Your task to perform on an android device: turn vacation reply on in the gmail app Image 0: 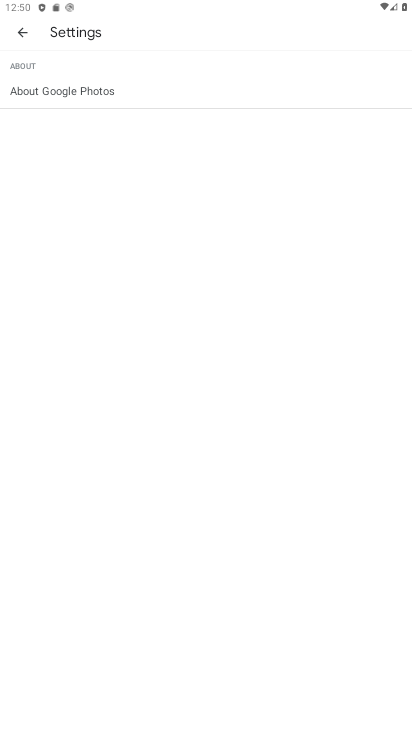
Step 0: press home button
Your task to perform on an android device: turn vacation reply on in the gmail app Image 1: 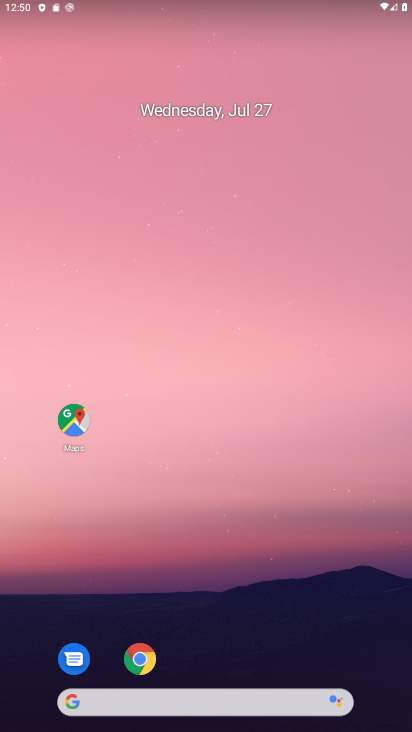
Step 1: drag from (238, 516) to (234, 191)
Your task to perform on an android device: turn vacation reply on in the gmail app Image 2: 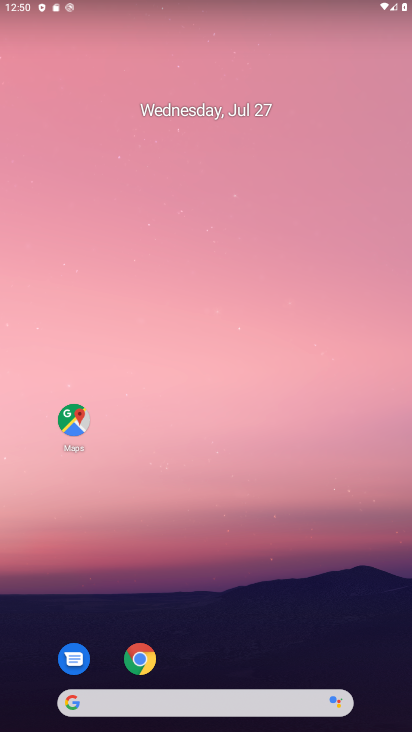
Step 2: drag from (262, 659) to (298, 192)
Your task to perform on an android device: turn vacation reply on in the gmail app Image 3: 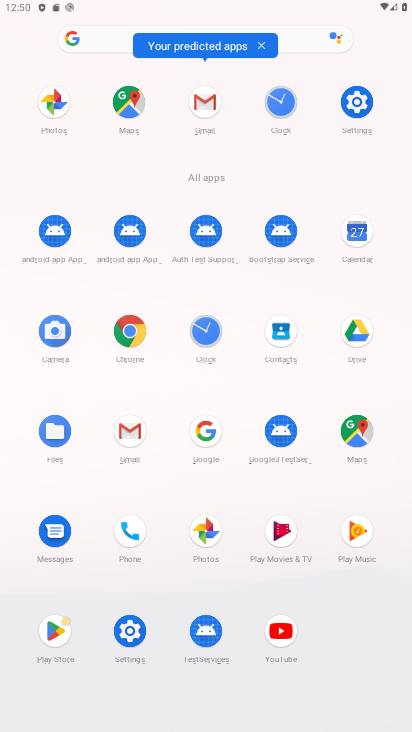
Step 3: click (201, 111)
Your task to perform on an android device: turn vacation reply on in the gmail app Image 4: 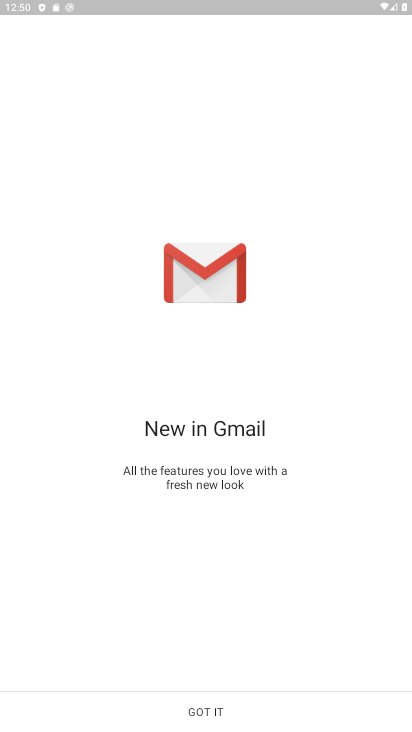
Step 4: click (219, 704)
Your task to perform on an android device: turn vacation reply on in the gmail app Image 5: 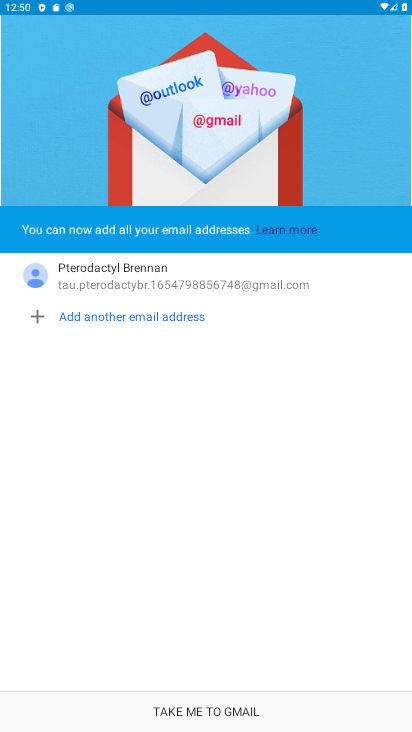
Step 5: click (143, 710)
Your task to perform on an android device: turn vacation reply on in the gmail app Image 6: 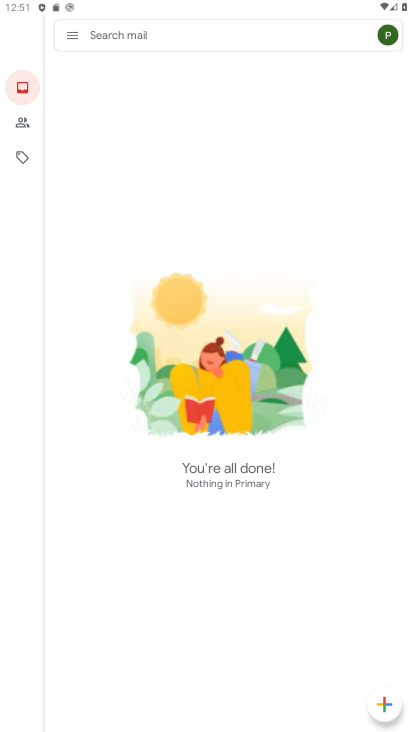
Step 6: click (65, 34)
Your task to perform on an android device: turn vacation reply on in the gmail app Image 7: 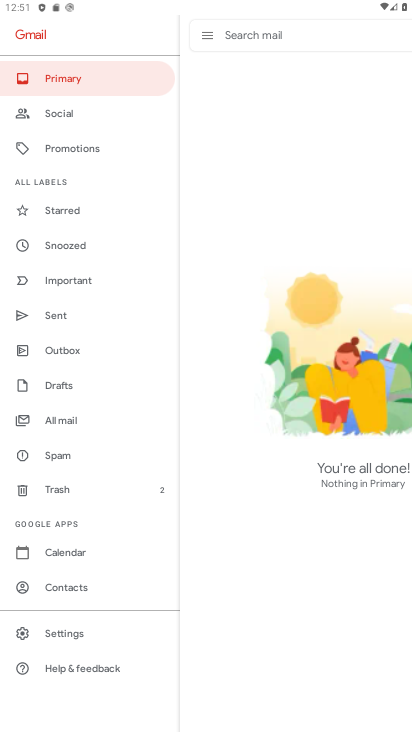
Step 7: click (36, 639)
Your task to perform on an android device: turn vacation reply on in the gmail app Image 8: 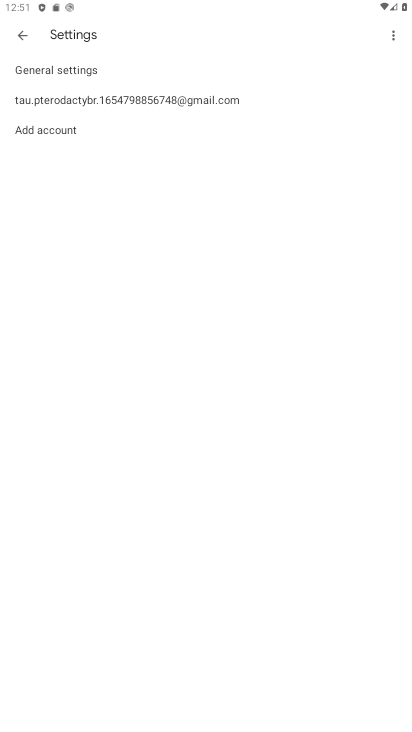
Step 8: click (130, 92)
Your task to perform on an android device: turn vacation reply on in the gmail app Image 9: 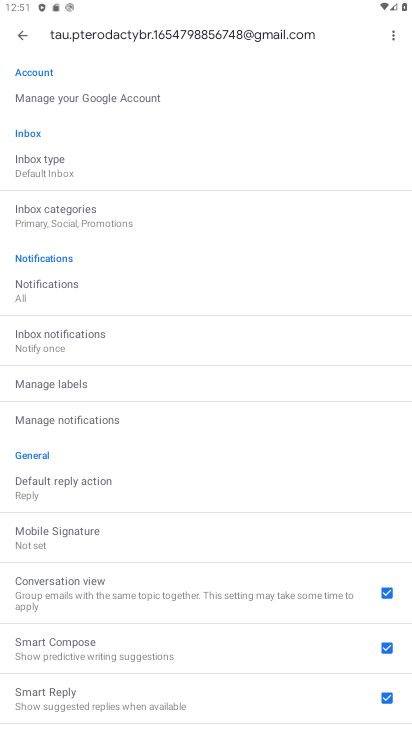
Step 9: drag from (125, 566) to (52, 118)
Your task to perform on an android device: turn vacation reply on in the gmail app Image 10: 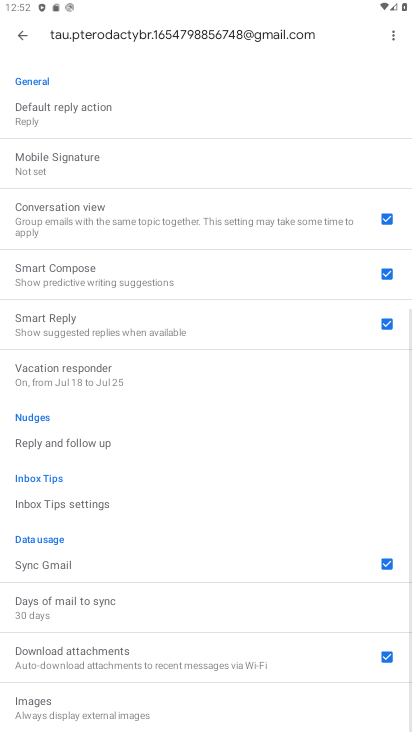
Step 10: click (56, 381)
Your task to perform on an android device: turn vacation reply on in the gmail app Image 11: 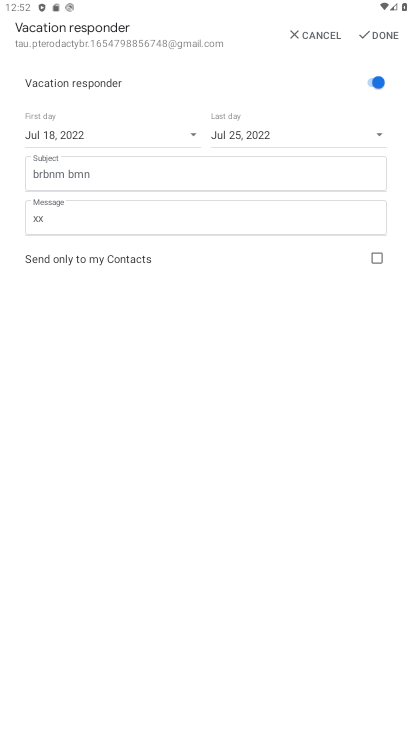
Step 11: click (93, 222)
Your task to perform on an android device: turn vacation reply on in the gmail app Image 12: 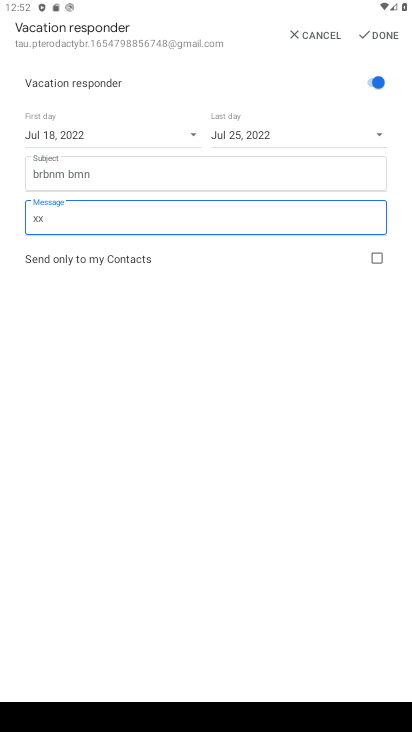
Step 12: type "nnhgdsaqwetui753"
Your task to perform on an android device: turn vacation reply on in the gmail app Image 13: 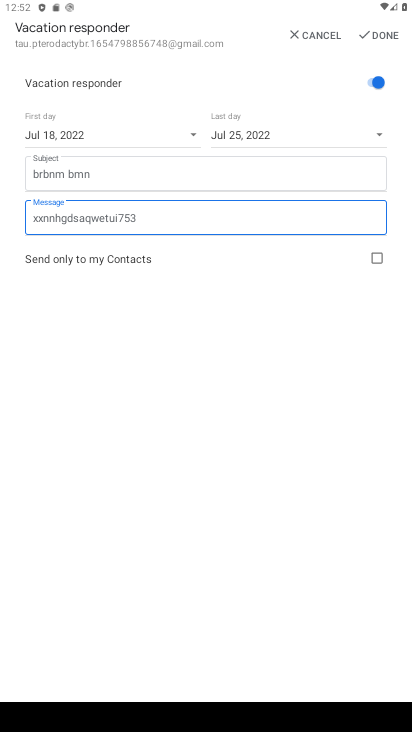
Step 13: click (190, 135)
Your task to perform on an android device: turn vacation reply on in the gmail app Image 14: 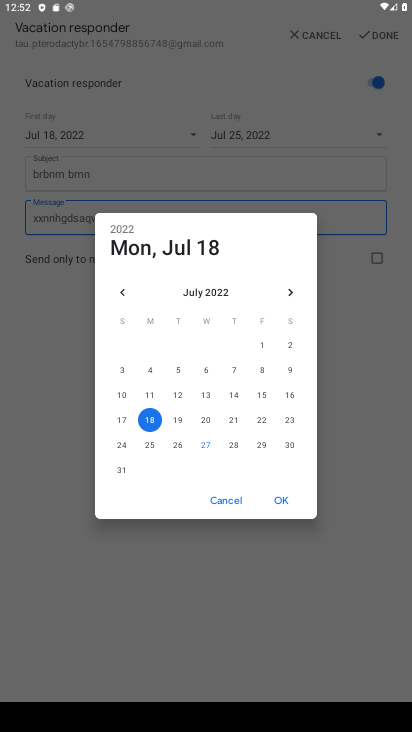
Step 14: click (207, 443)
Your task to perform on an android device: turn vacation reply on in the gmail app Image 15: 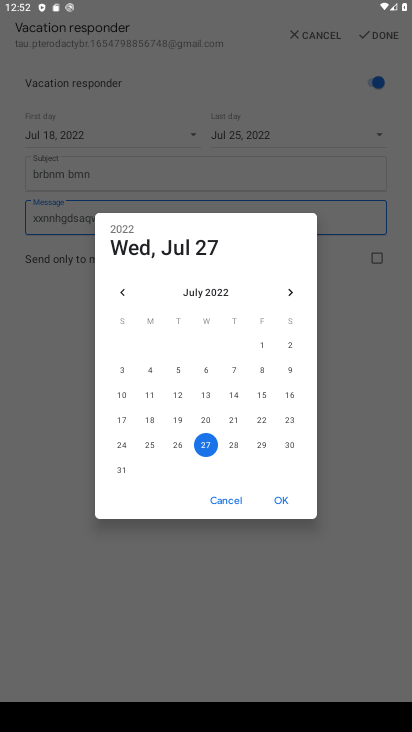
Step 15: click (279, 506)
Your task to perform on an android device: turn vacation reply on in the gmail app Image 16: 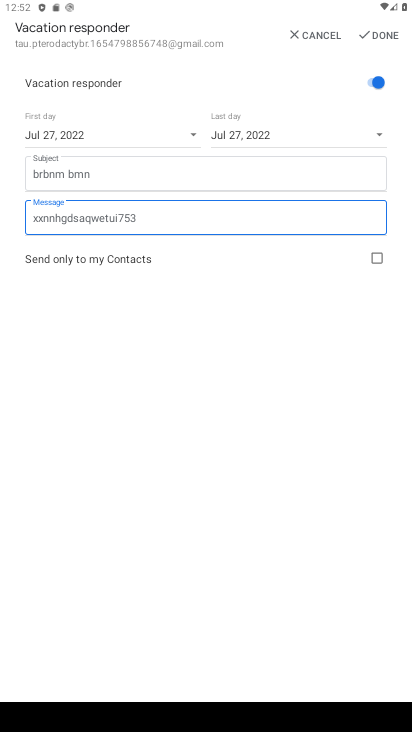
Step 16: click (378, 134)
Your task to perform on an android device: turn vacation reply on in the gmail app Image 17: 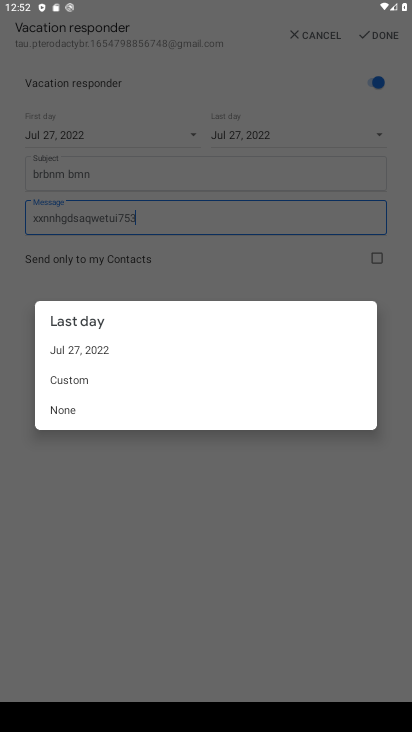
Step 17: click (92, 379)
Your task to perform on an android device: turn vacation reply on in the gmail app Image 18: 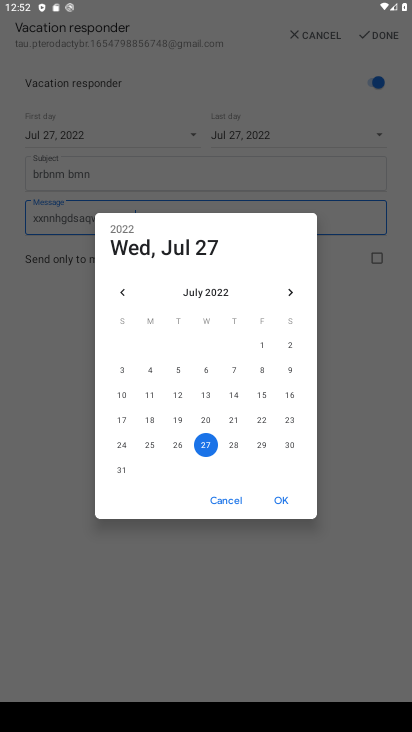
Step 18: drag from (283, 452) to (42, 451)
Your task to perform on an android device: turn vacation reply on in the gmail app Image 19: 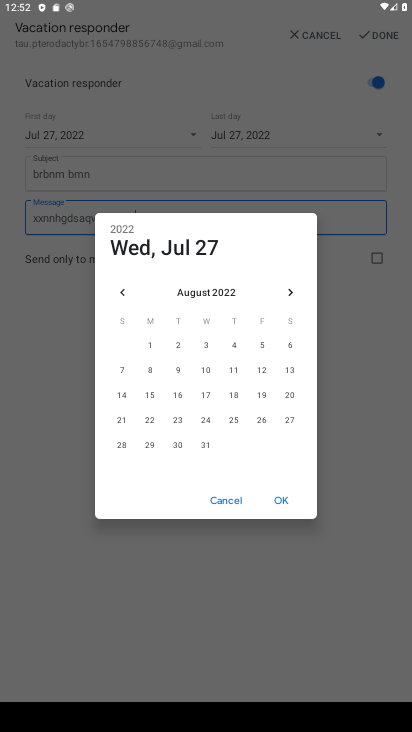
Step 19: click (290, 292)
Your task to perform on an android device: turn vacation reply on in the gmail app Image 20: 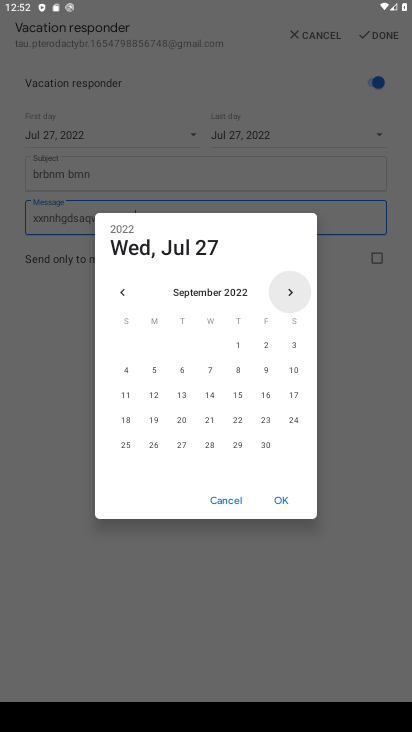
Step 20: click (290, 292)
Your task to perform on an android device: turn vacation reply on in the gmail app Image 21: 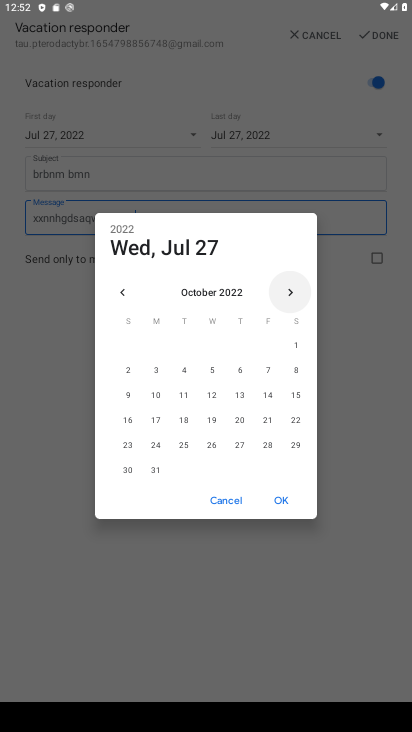
Step 21: click (290, 292)
Your task to perform on an android device: turn vacation reply on in the gmail app Image 22: 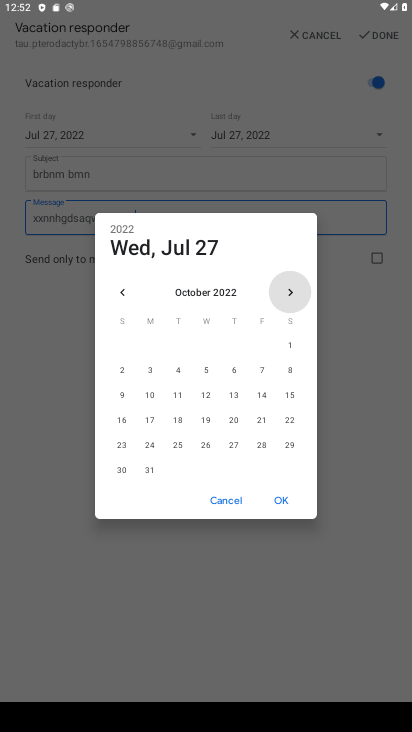
Step 22: click (290, 292)
Your task to perform on an android device: turn vacation reply on in the gmail app Image 23: 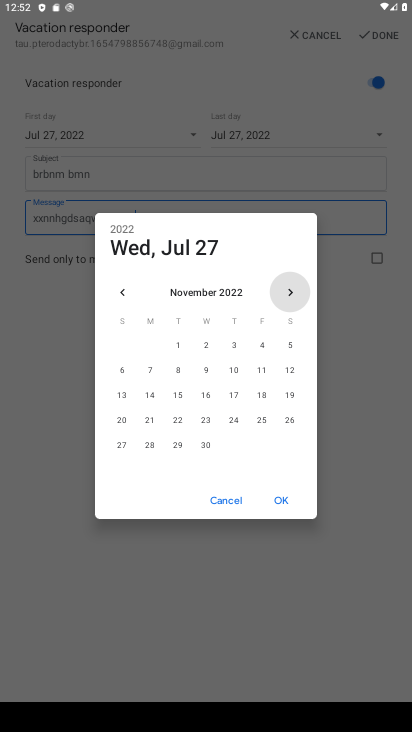
Step 23: click (290, 292)
Your task to perform on an android device: turn vacation reply on in the gmail app Image 24: 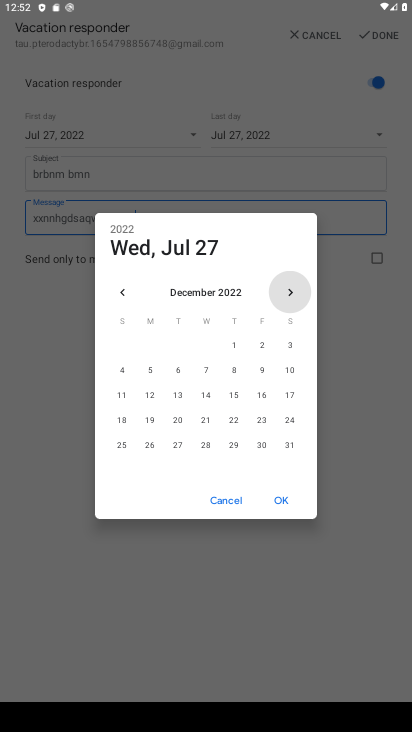
Step 24: click (290, 292)
Your task to perform on an android device: turn vacation reply on in the gmail app Image 25: 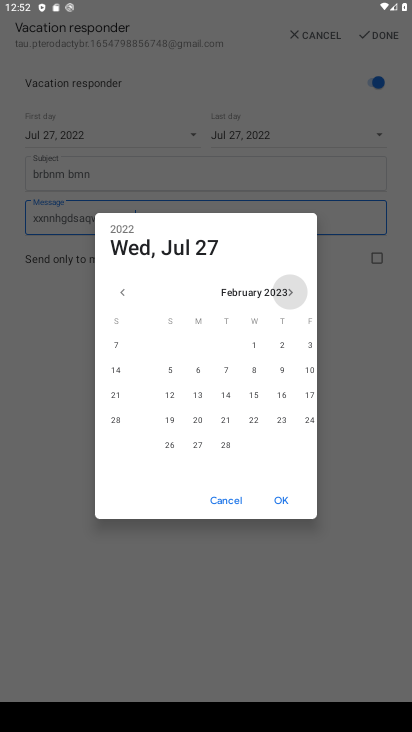
Step 25: click (290, 292)
Your task to perform on an android device: turn vacation reply on in the gmail app Image 26: 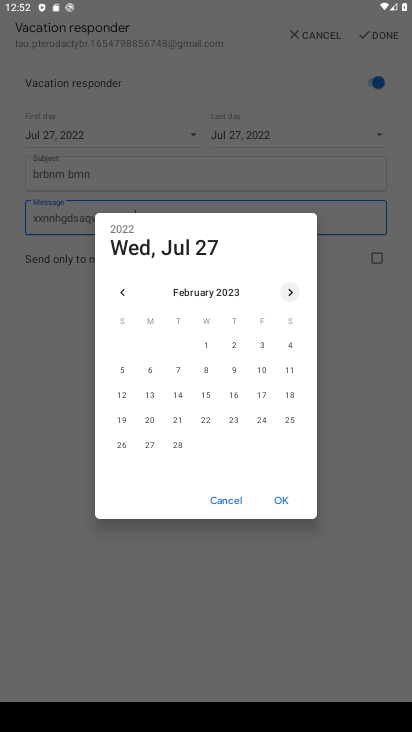
Step 26: click (290, 292)
Your task to perform on an android device: turn vacation reply on in the gmail app Image 27: 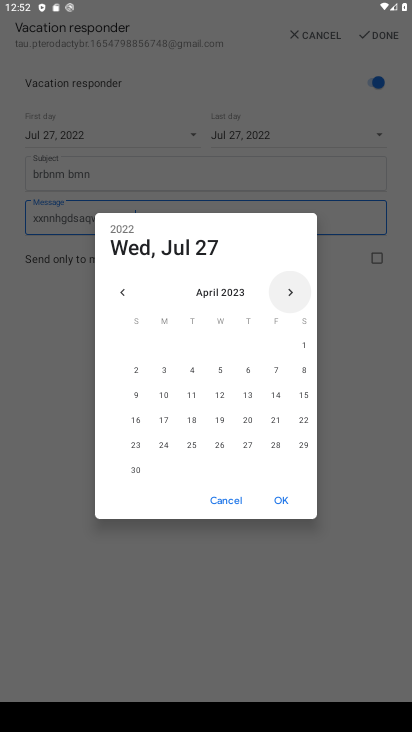
Step 27: click (270, 382)
Your task to perform on an android device: turn vacation reply on in the gmail app Image 28: 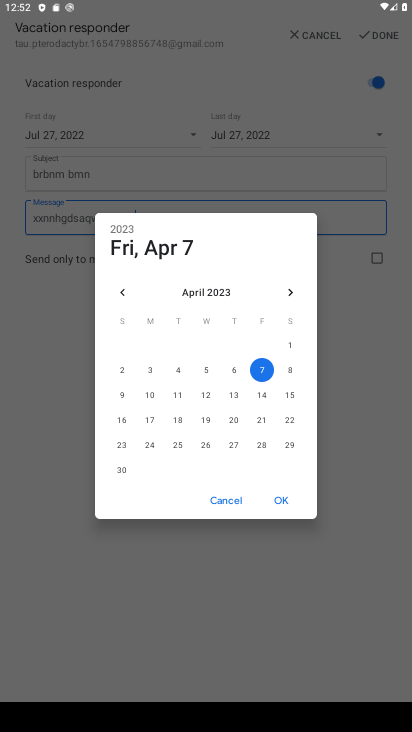
Step 28: click (276, 512)
Your task to perform on an android device: turn vacation reply on in the gmail app Image 29: 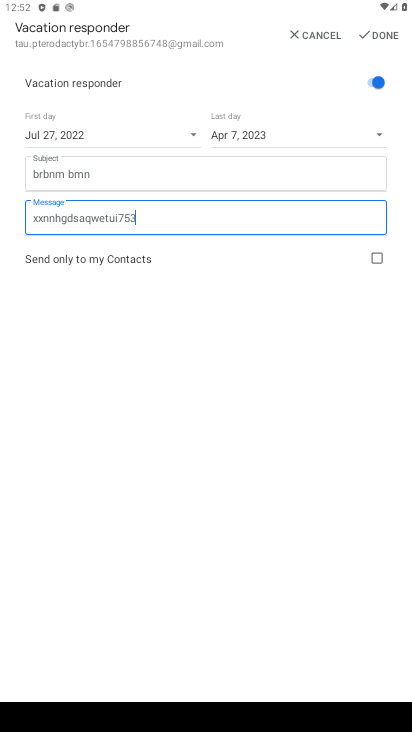
Step 29: click (360, 37)
Your task to perform on an android device: turn vacation reply on in the gmail app Image 30: 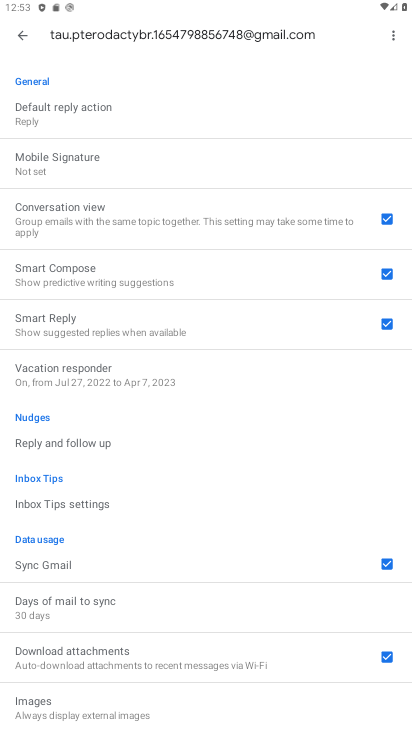
Step 30: task complete